Your task to perform on an android device: Go to privacy settings Image 0: 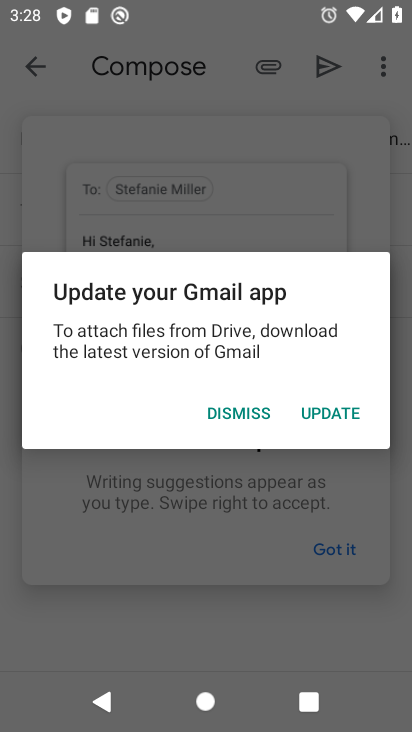
Step 0: press home button
Your task to perform on an android device: Go to privacy settings Image 1: 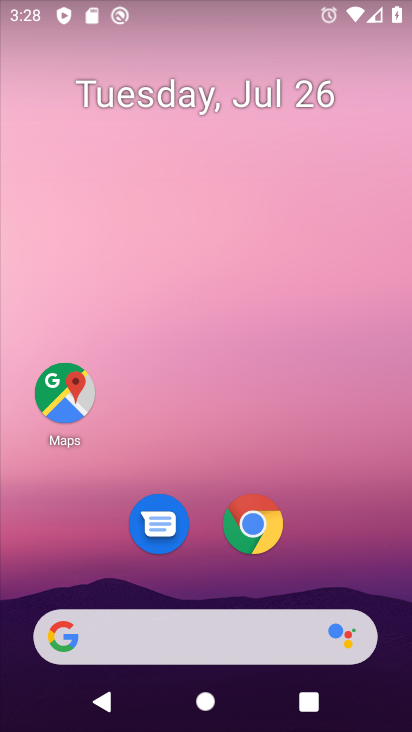
Step 1: drag from (332, 563) to (339, 6)
Your task to perform on an android device: Go to privacy settings Image 2: 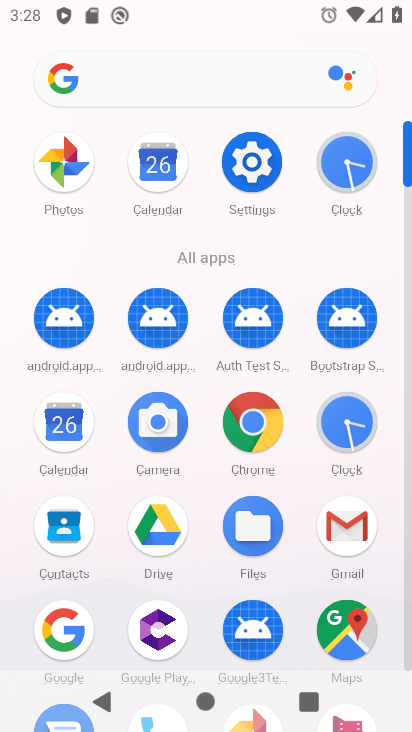
Step 2: click (251, 168)
Your task to perform on an android device: Go to privacy settings Image 3: 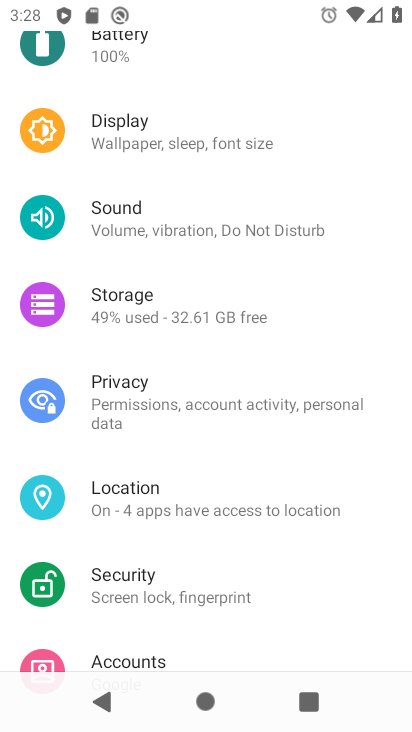
Step 3: click (215, 398)
Your task to perform on an android device: Go to privacy settings Image 4: 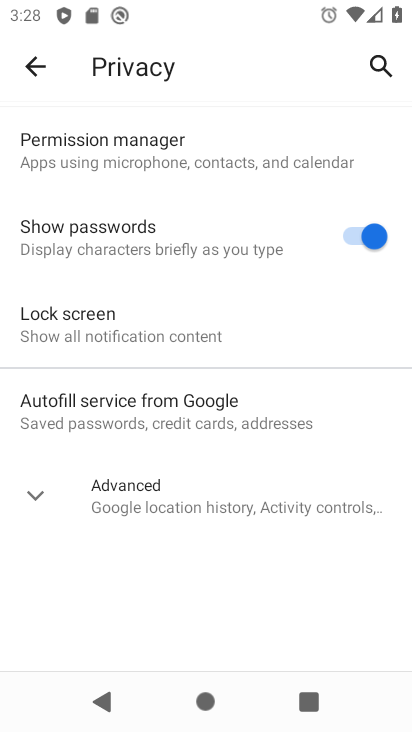
Step 4: task complete